Your task to perform on an android device: delete browsing data in the chrome app Image 0: 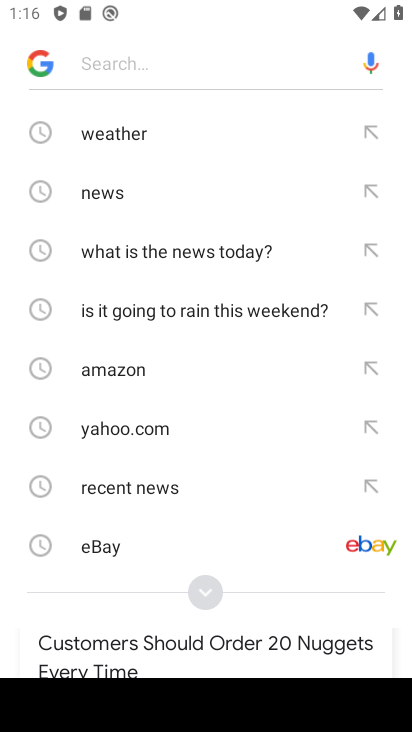
Step 0: press back button
Your task to perform on an android device: delete browsing data in the chrome app Image 1: 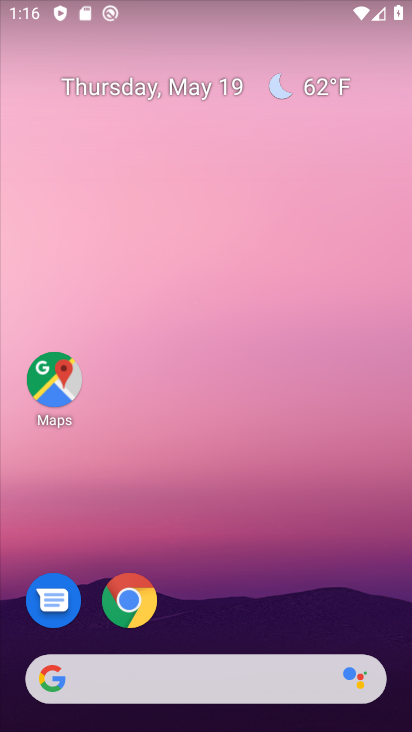
Step 1: click (138, 577)
Your task to perform on an android device: delete browsing data in the chrome app Image 2: 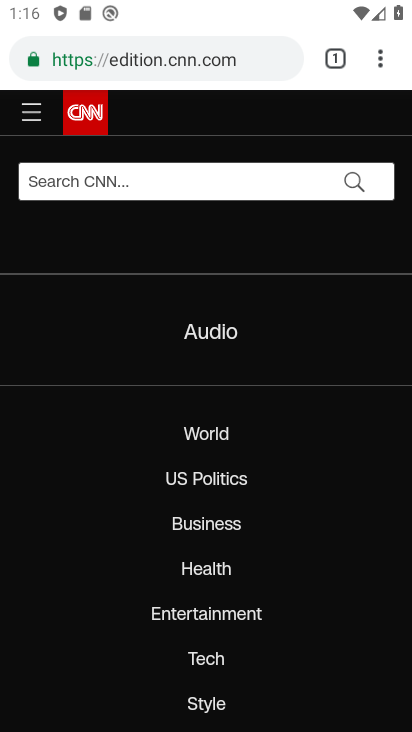
Step 2: click (374, 53)
Your task to perform on an android device: delete browsing data in the chrome app Image 3: 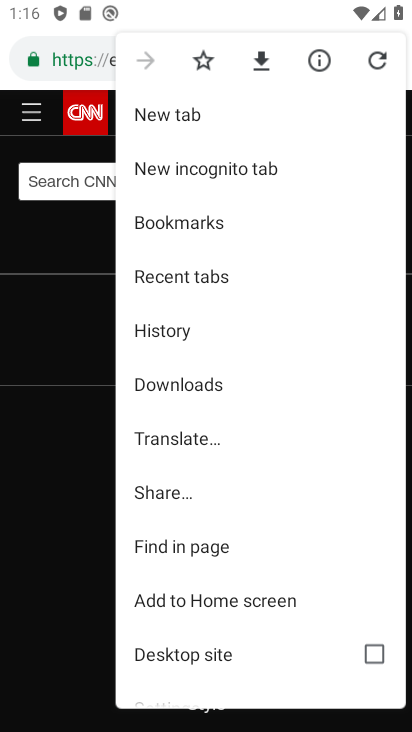
Step 3: drag from (218, 627) to (197, 379)
Your task to perform on an android device: delete browsing data in the chrome app Image 4: 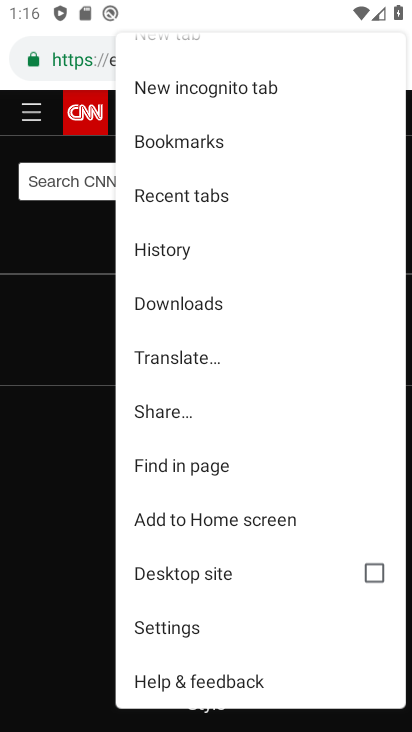
Step 4: click (193, 625)
Your task to perform on an android device: delete browsing data in the chrome app Image 5: 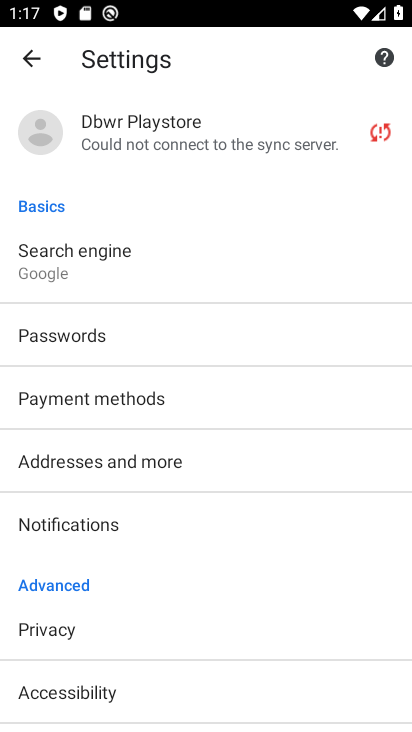
Step 5: drag from (175, 630) to (155, 375)
Your task to perform on an android device: delete browsing data in the chrome app Image 6: 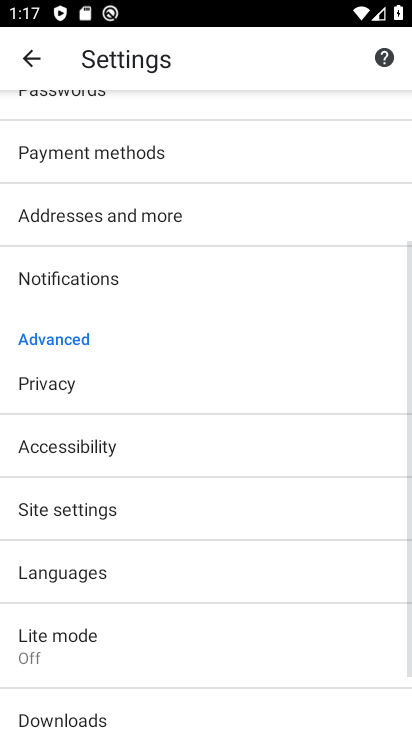
Step 6: click (127, 375)
Your task to perform on an android device: delete browsing data in the chrome app Image 7: 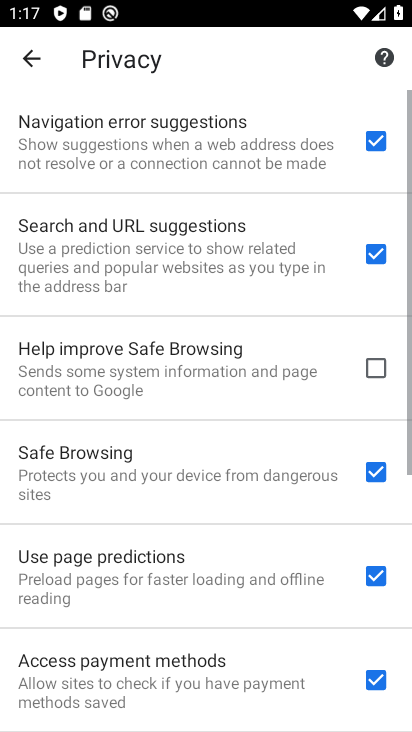
Step 7: drag from (200, 702) to (174, 236)
Your task to perform on an android device: delete browsing data in the chrome app Image 8: 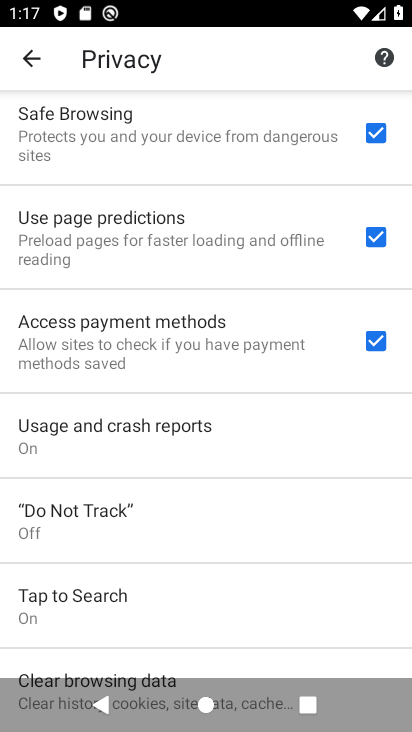
Step 8: click (150, 662)
Your task to perform on an android device: delete browsing data in the chrome app Image 9: 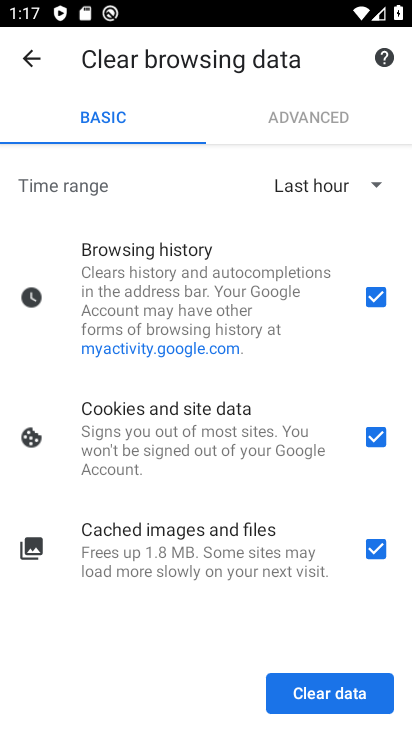
Step 9: click (372, 438)
Your task to perform on an android device: delete browsing data in the chrome app Image 10: 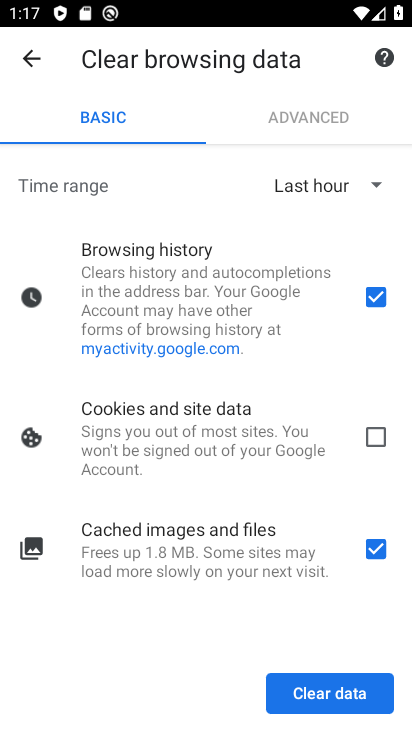
Step 10: click (363, 182)
Your task to perform on an android device: delete browsing data in the chrome app Image 11: 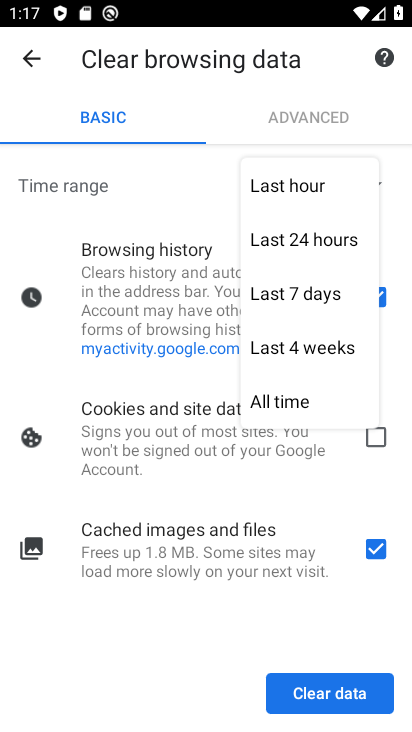
Step 11: click (271, 386)
Your task to perform on an android device: delete browsing data in the chrome app Image 12: 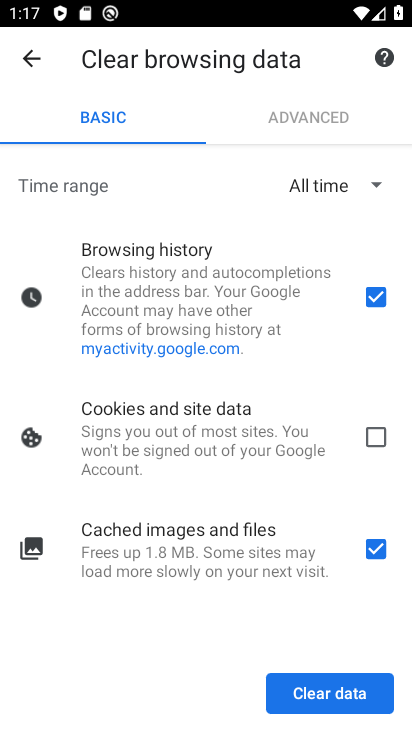
Step 12: click (375, 558)
Your task to perform on an android device: delete browsing data in the chrome app Image 13: 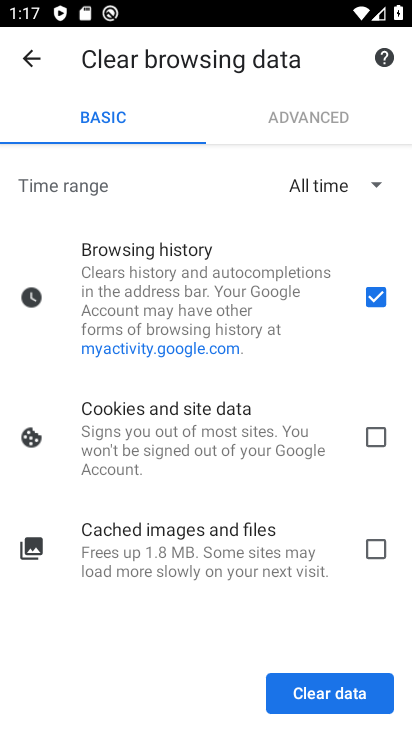
Step 13: click (343, 692)
Your task to perform on an android device: delete browsing data in the chrome app Image 14: 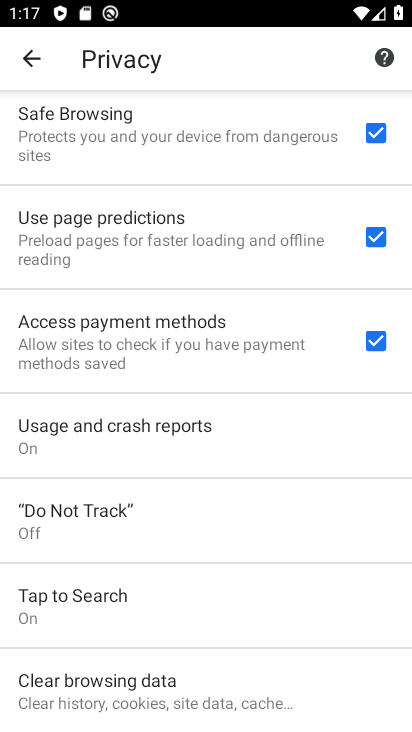
Step 14: task complete